Your task to perform on an android device: toggle location history Image 0: 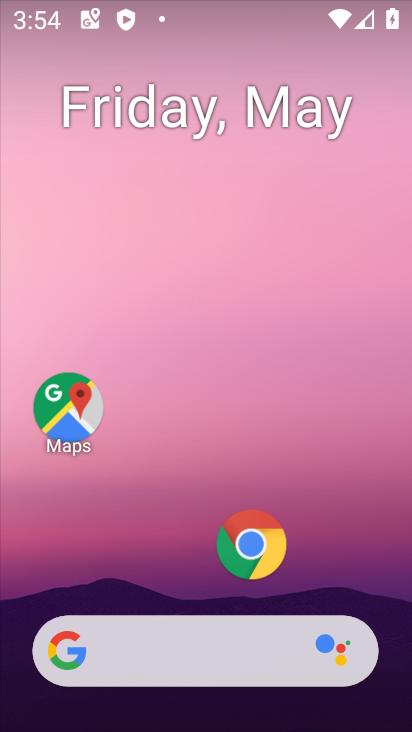
Step 0: drag from (196, 591) to (206, 169)
Your task to perform on an android device: toggle location history Image 1: 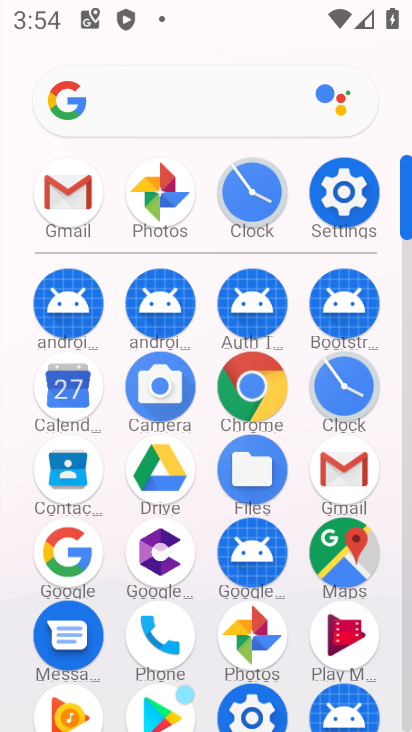
Step 1: click (328, 208)
Your task to perform on an android device: toggle location history Image 2: 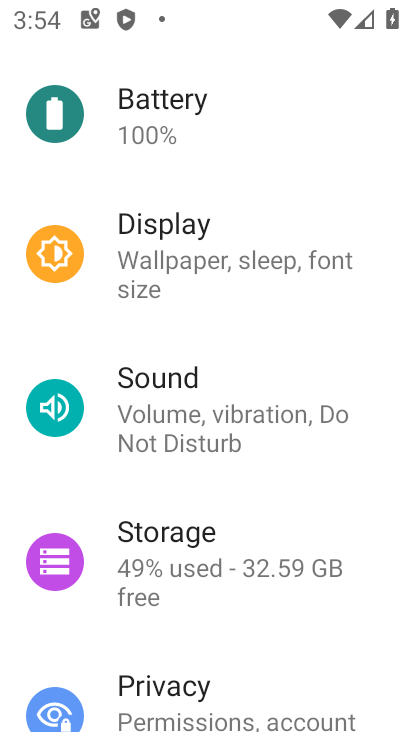
Step 2: drag from (211, 594) to (225, 254)
Your task to perform on an android device: toggle location history Image 3: 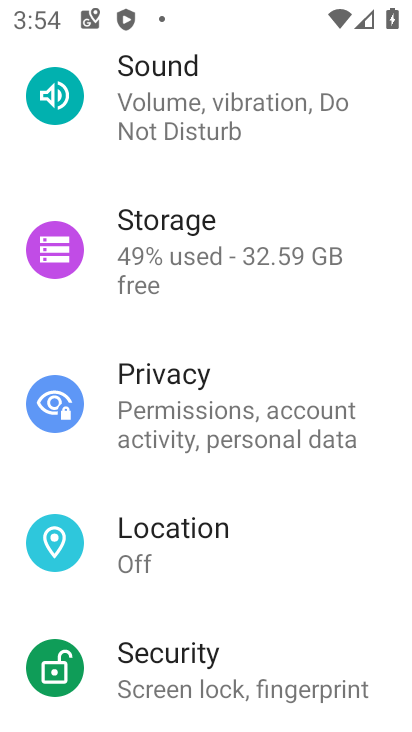
Step 3: drag from (227, 516) to (252, 264)
Your task to perform on an android device: toggle location history Image 4: 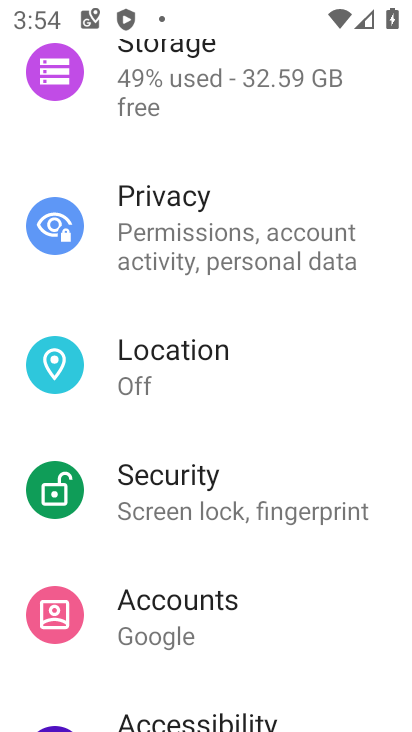
Step 4: drag from (233, 527) to (252, 374)
Your task to perform on an android device: toggle location history Image 5: 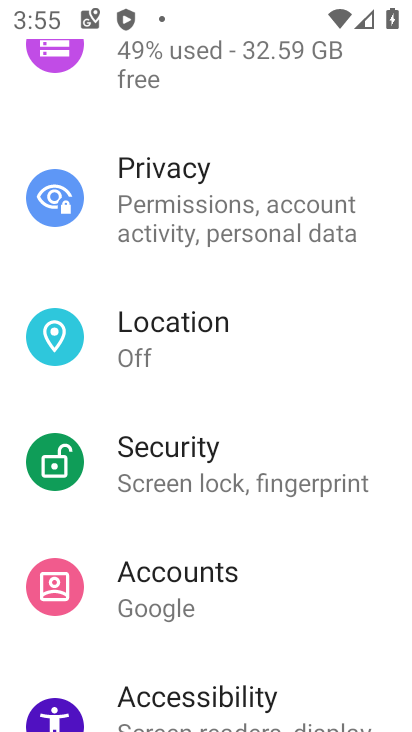
Step 5: click (241, 352)
Your task to perform on an android device: toggle location history Image 6: 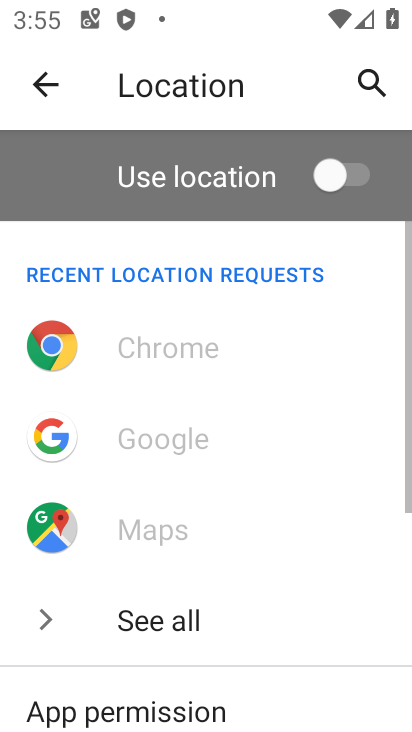
Step 6: drag from (270, 604) to (270, 227)
Your task to perform on an android device: toggle location history Image 7: 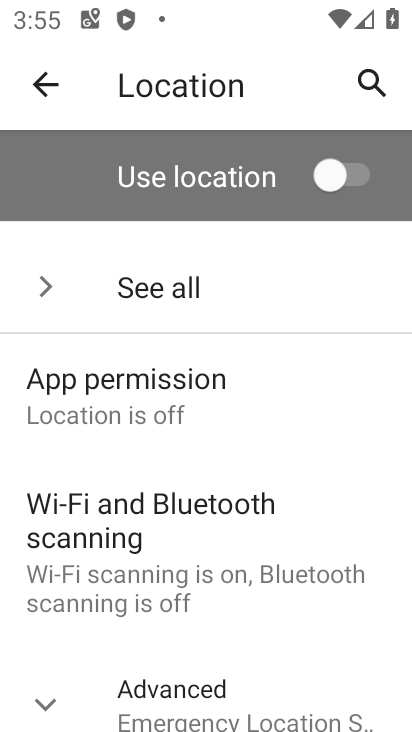
Step 7: drag from (222, 581) to (260, 389)
Your task to perform on an android device: toggle location history Image 8: 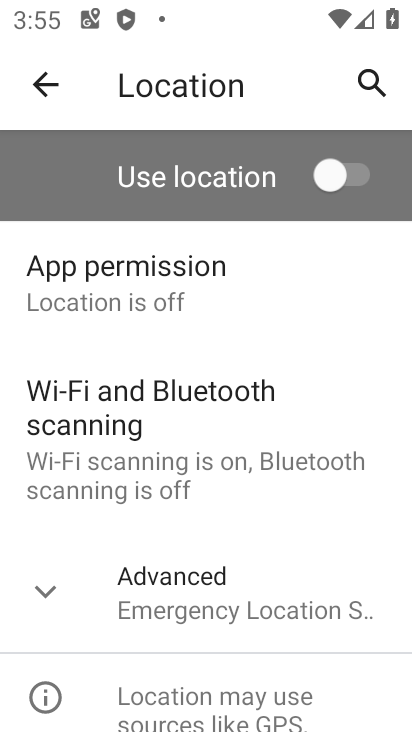
Step 8: click (252, 627)
Your task to perform on an android device: toggle location history Image 9: 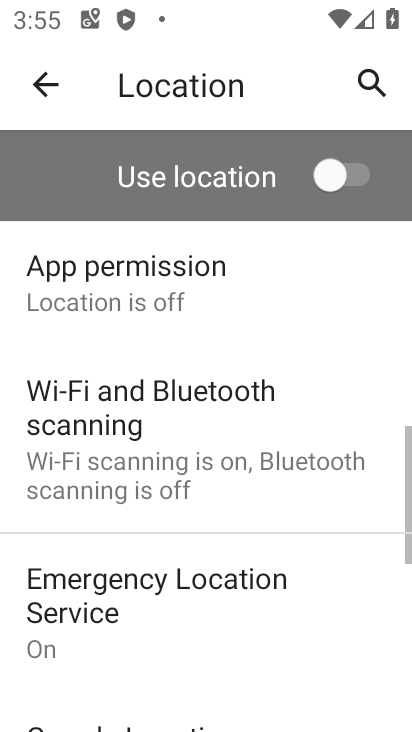
Step 9: drag from (253, 626) to (281, 351)
Your task to perform on an android device: toggle location history Image 10: 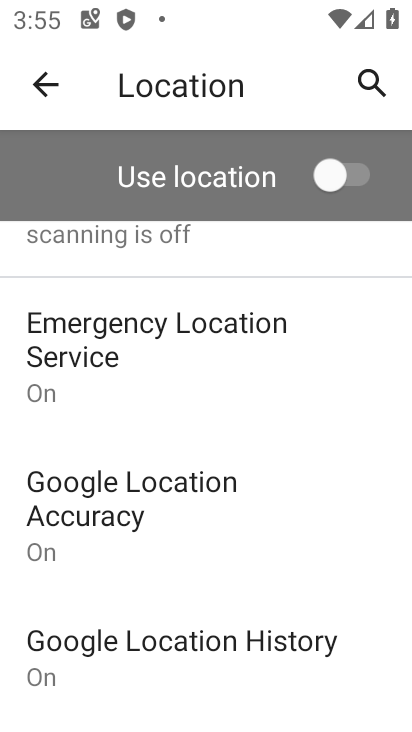
Step 10: click (282, 633)
Your task to perform on an android device: toggle location history Image 11: 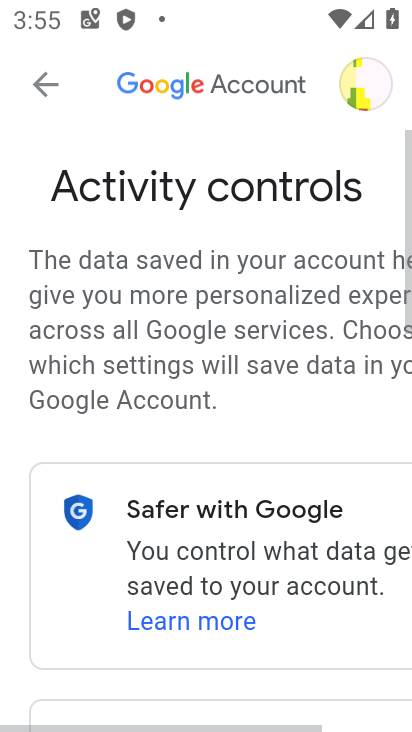
Step 11: drag from (247, 597) to (252, 214)
Your task to perform on an android device: toggle location history Image 12: 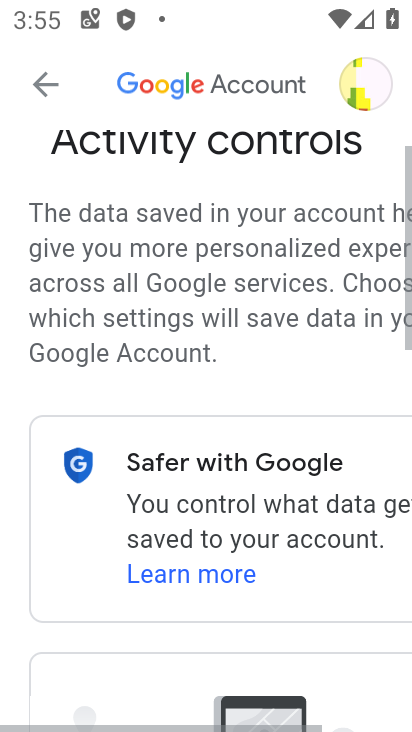
Step 12: drag from (313, 475) to (294, 222)
Your task to perform on an android device: toggle location history Image 13: 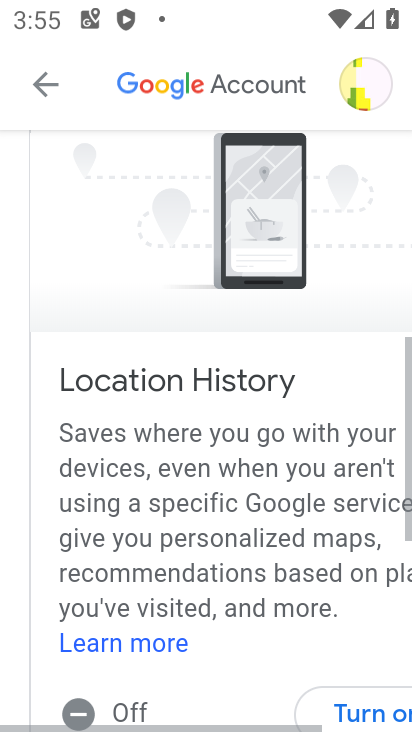
Step 13: drag from (324, 539) to (309, 277)
Your task to perform on an android device: toggle location history Image 14: 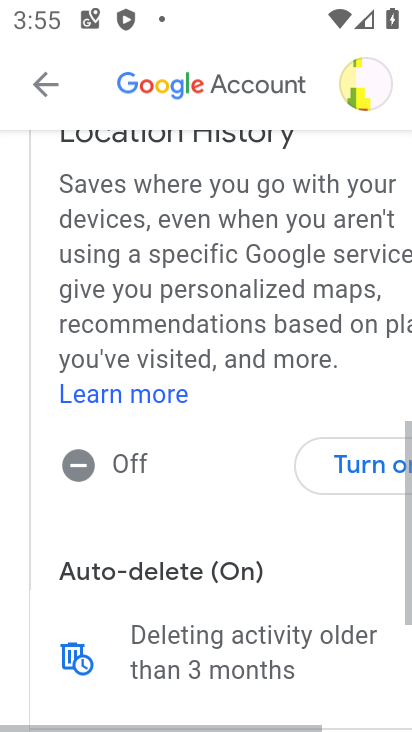
Step 14: drag from (296, 583) to (296, 285)
Your task to perform on an android device: toggle location history Image 15: 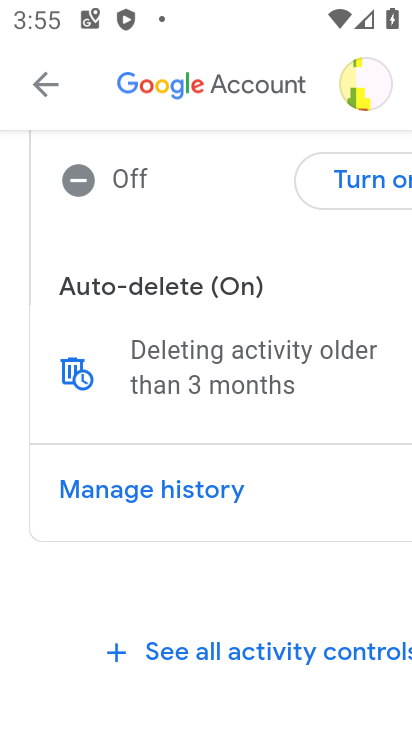
Step 15: click (362, 190)
Your task to perform on an android device: toggle location history Image 16: 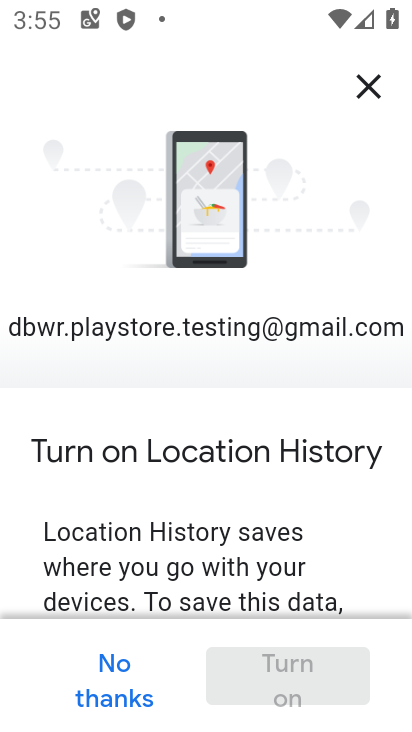
Step 16: drag from (285, 583) to (208, 99)
Your task to perform on an android device: toggle location history Image 17: 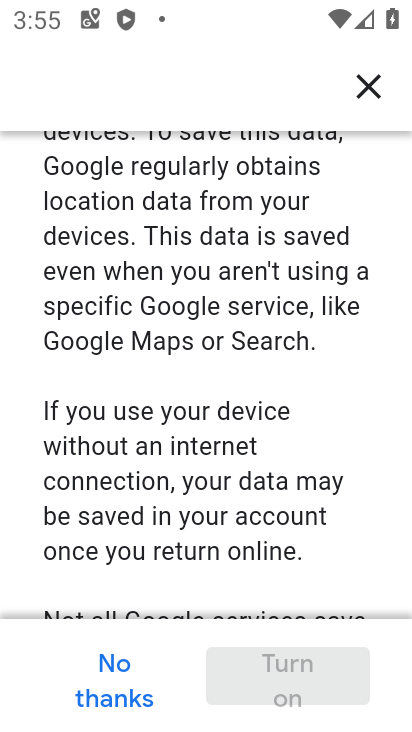
Step 17: drag from (255, 521) to (267, 79)
Your task to perform on an android device: toggle location history Image 18: 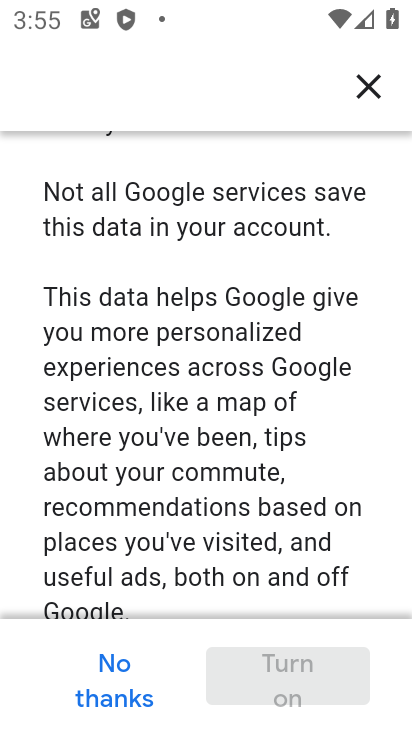
Step 18: drag from (260, 540) to (216, 106)
Your task to perform on an android device: toggle location history Image 19: 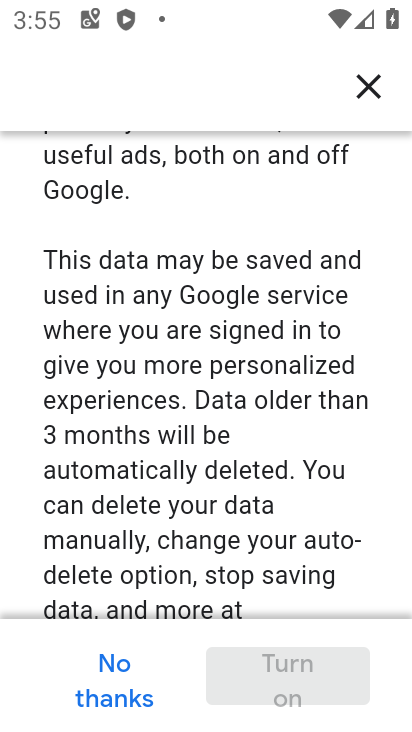
Step 19: drag from (244, 533) to (274, 154)
Your task to perform on an android device: toggle location history Image 20: 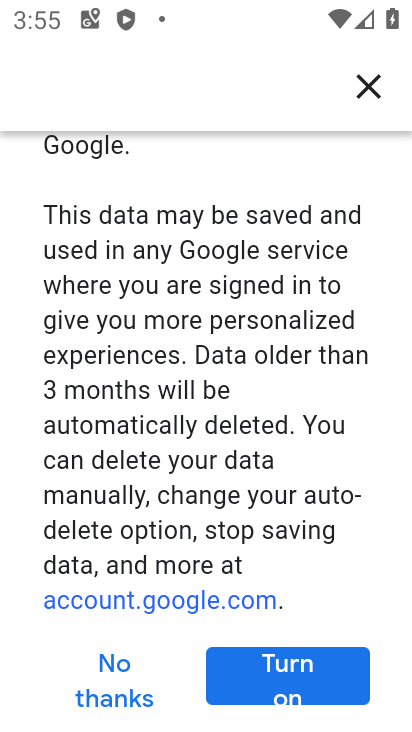
Step 20: click (307, 684)
Your task to perform on an android device: toggle location history Image 21: 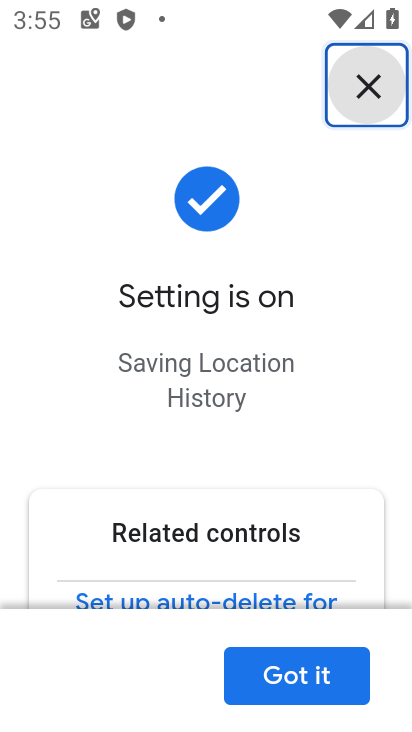
Step 21: task complete